Your task to perform on an android device: Show me productivity apps on the Play Store Image 0: 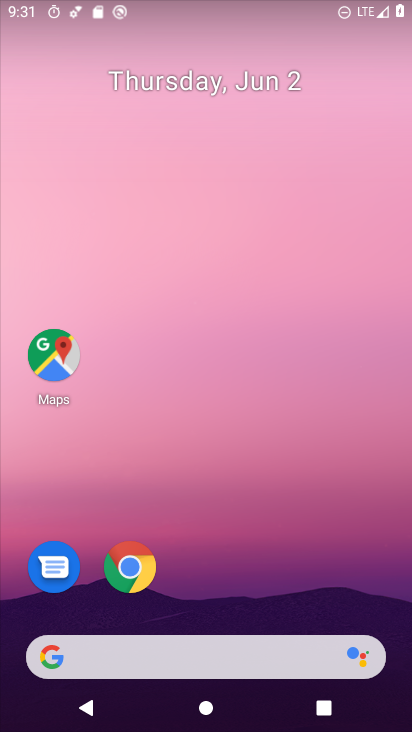
Step 0: drag from (381, 606) to (367, 49)
Your task to perform on an android device: Show me productivity apps on the Play Store Image 1: 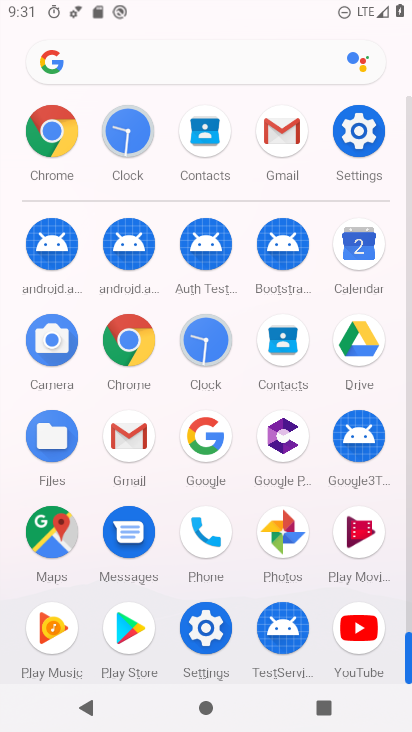
Step 1: click (118, 632)
Your task to perform on an android device: Show me productivity apps on the Play Store Image 2: 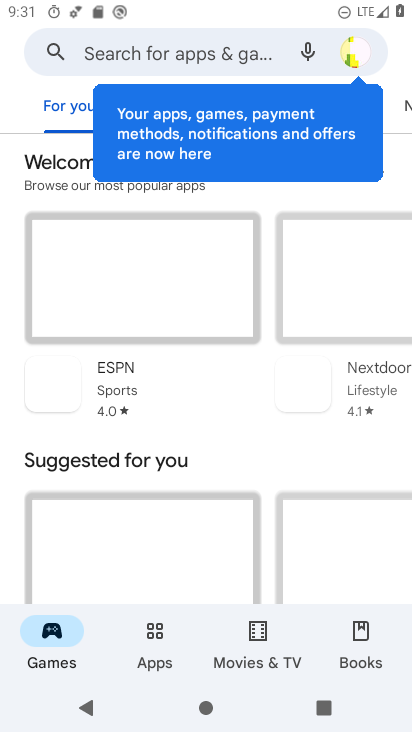
Step 2: click (149, 633)
Your task to perform on an android device: Show me productivity apps on the Play Store Image 3: 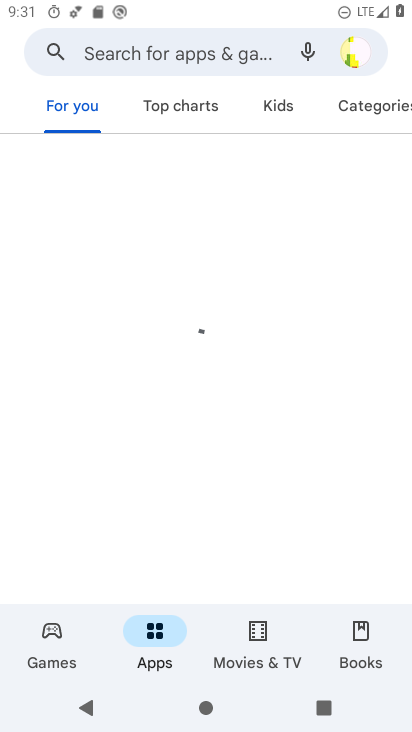
Step 3: click (367, 108)
Your task to perform on an android device: Show me productivity apps on the Play Store Image 4: 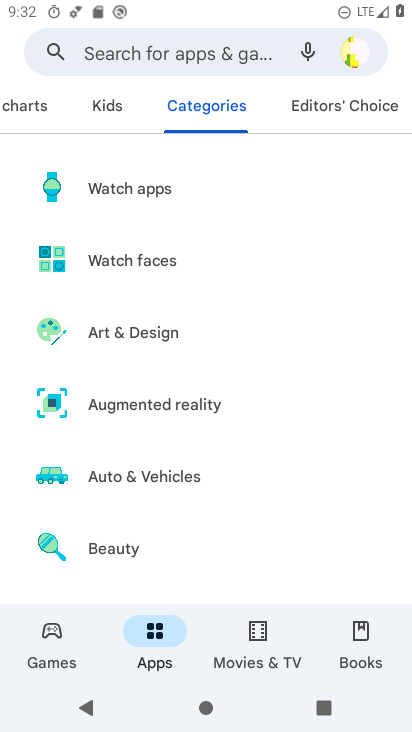
Step 4: drag from (205, 566) to (228, 182)
Your task to perform on an android device: Show me productivity apps on the Play Store Image 5: 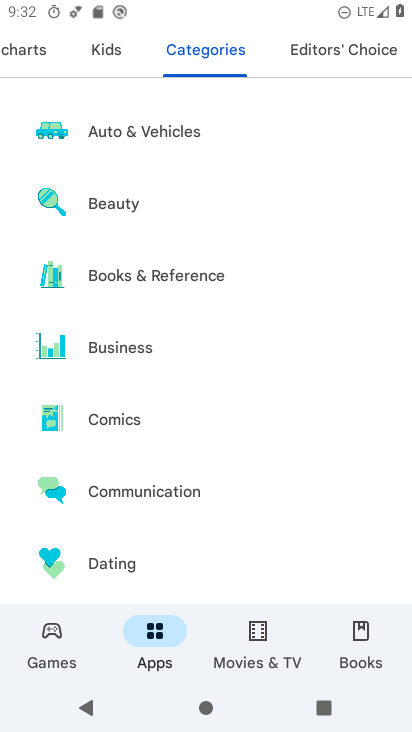
Step 5: drag from (222, 506) to (222, 192)
Your task to perform on an android device: Show me productivity apps on the Play Store Image 6: 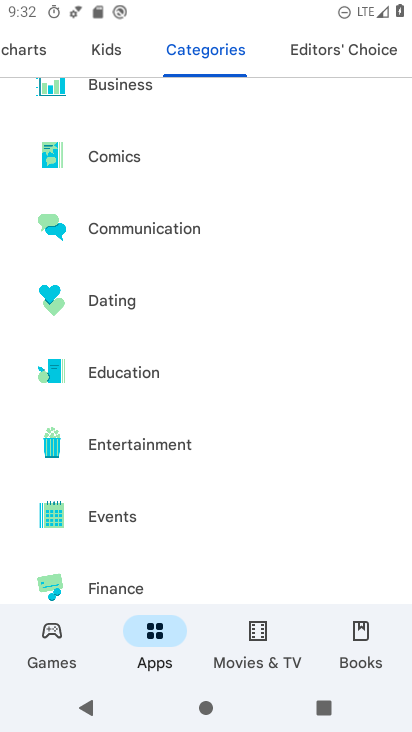
Step 6: drag from (311, 236) to (328, 77)
Your task to perform on an android device: Show me productivity apps on the Play Store Image 7: 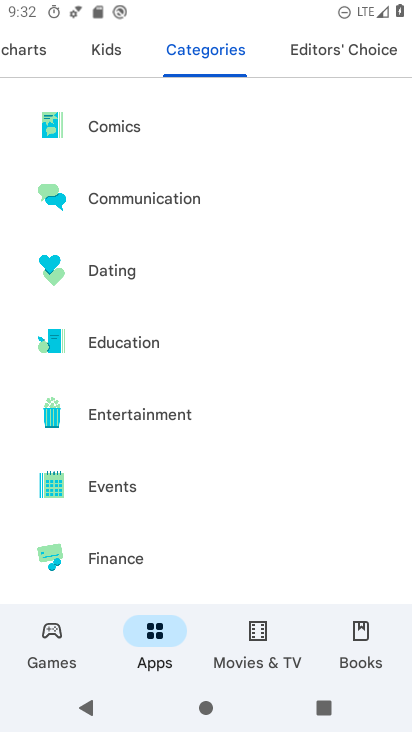
Step 7: drag from (261, 541) to (277, 133)
Your task to perform on an android device: Show me productivity apps on the Play Store Image 8: 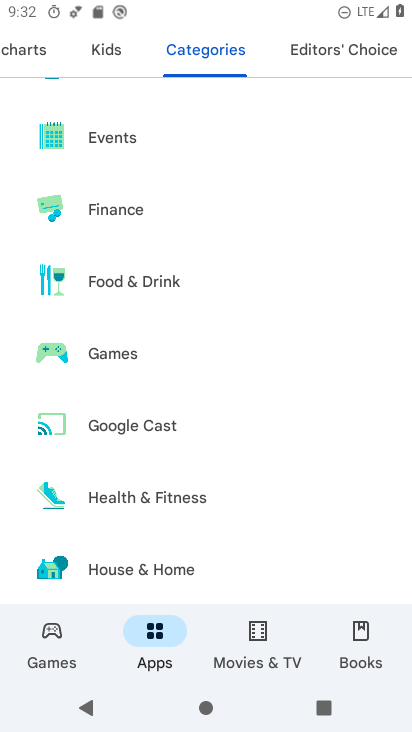
Step 8: drag from (253, 572) to (283, 230)
Your task to perform on an android device: Show me productivity apps on the Play Store Image 9: 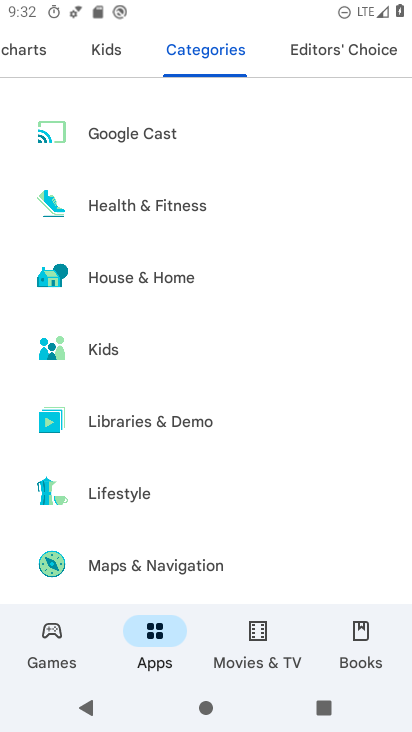
Step 9: drag from (239, 531) to (278, 200)
Your task to perform on an android device: Show me productivity apps on the Play Store Image 10: 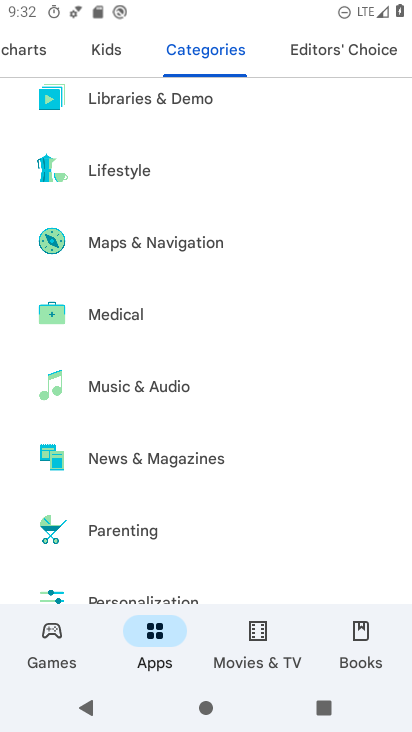
Step 10: drag from (275, 511) to (359, 248)
Your task to perform on an android device: Show me productivity apps on the Play Store Image 11: 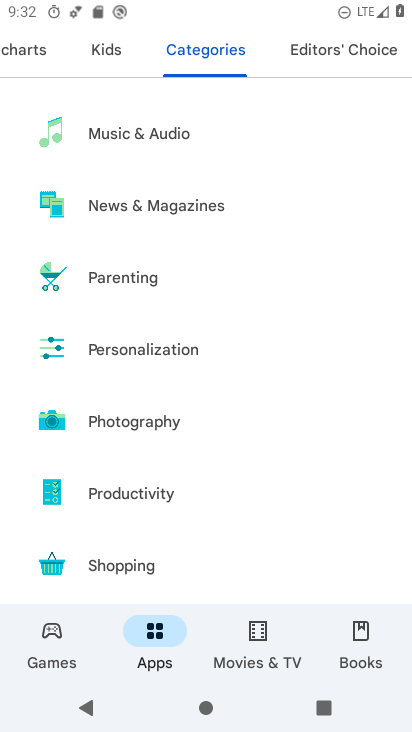
Step 11: click (207, 495)
Your task to perform on an android device: Show me productivity apps on the Play Store Image 12: 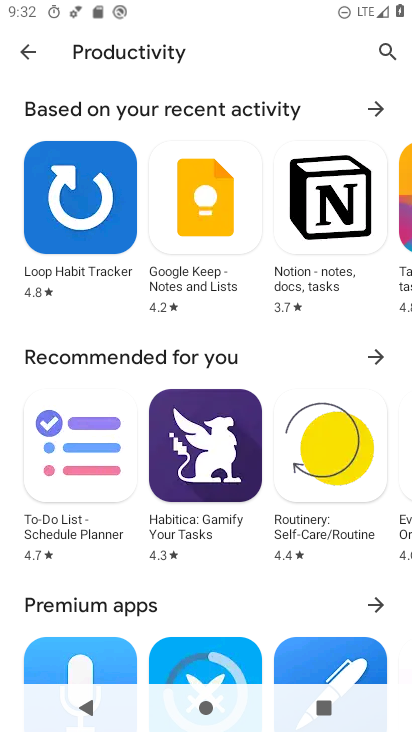
Step 12: task complete